Your task to perform on an android device: turn off improve location accuracy Image 0: 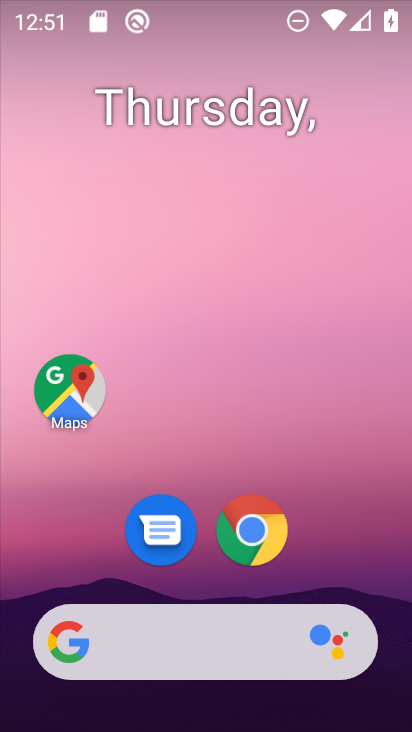
Step 0: drag from (241, 641) to (272, 68)
Your task to perform on an android device: turn off improve location accuracy Image 1: 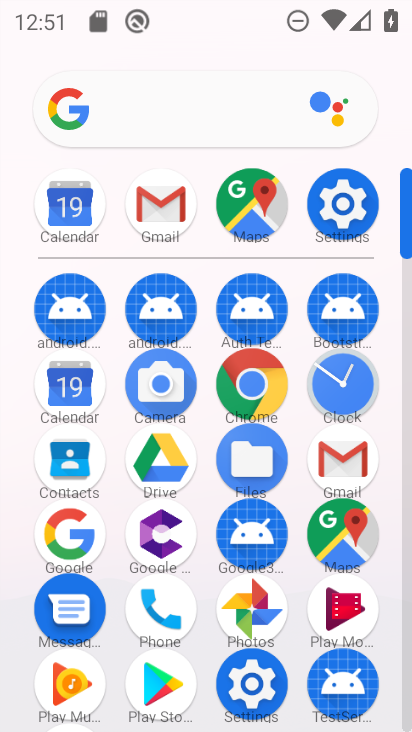
Step 1: click (262, 672)
Your task to perform on an android device: turn off improve location accuracy Image 2: 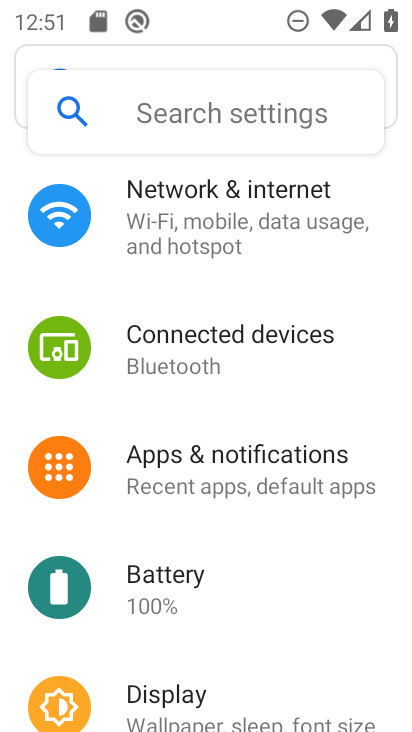
Step 2: drag from (218, 576) to (119, 2)
Your task to perform on an android device: turn off improve location accuracy Image 3: 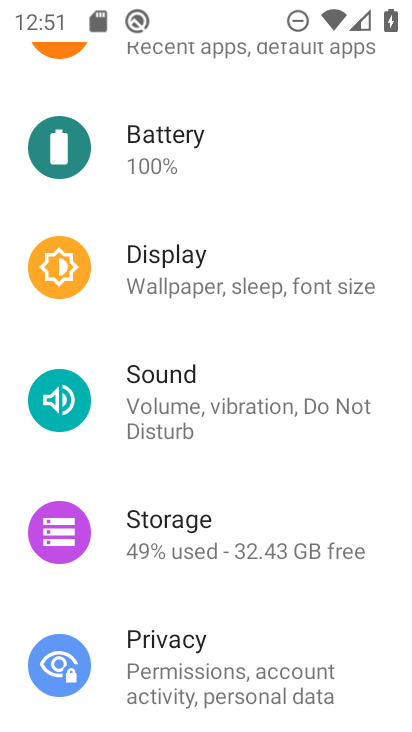
Step 3: drag from (185, 179) to (238, 377)
Your task to perform on an android device: turn off improve location accuracy Image 4: 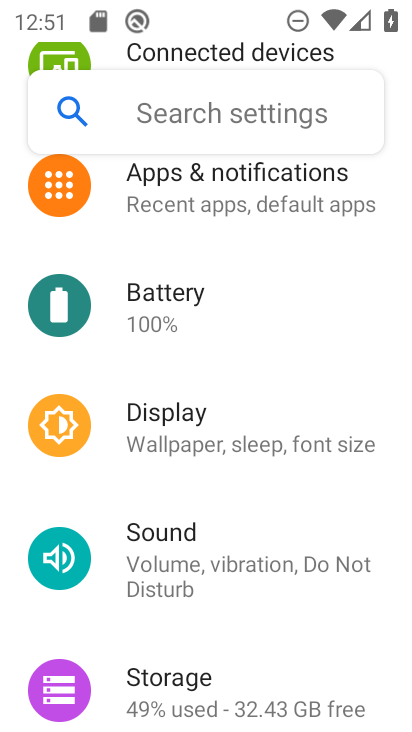
Step 4: drag from (220, 656) to (230, 41)
Your task to perform on an android device: turn off improve location accuracy Image 5: 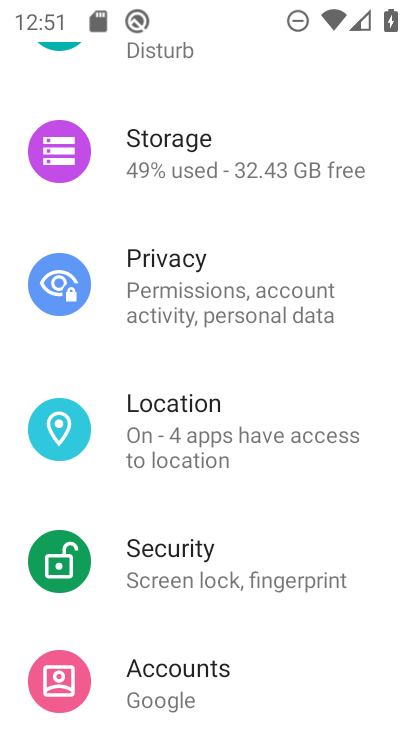
Step 5: click (186, 450)
Your task to perform on an android device: turn off improve location accuracy Image 6: 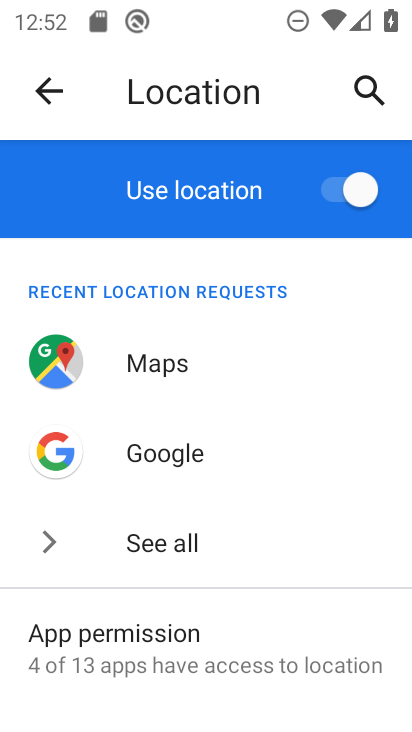
Step 6: drag from (144, 603) to (149, 4)
Your task to perform on an android device: turn off improve location accuracy Image 7: 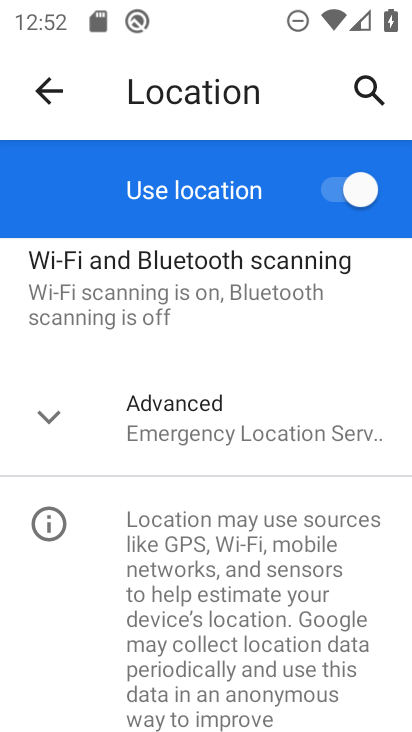
Step 7: click (183, 422)
Your task to perform on an android device: turn off improve location accuracy Image 8: 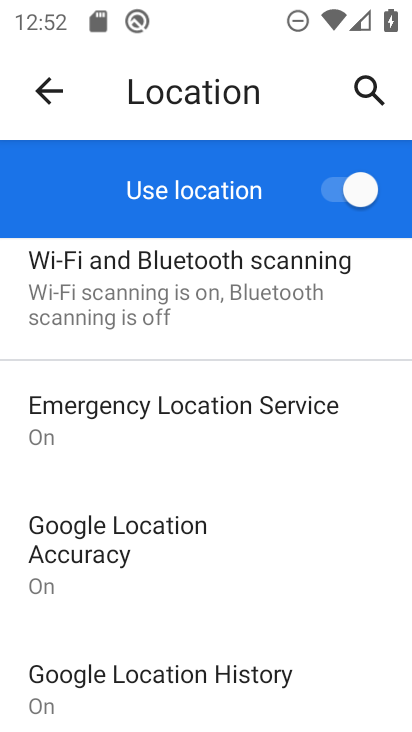
Step 8: click (145, 561)
Your task to perform on an android device: turn off improve location accuracy Image 9: 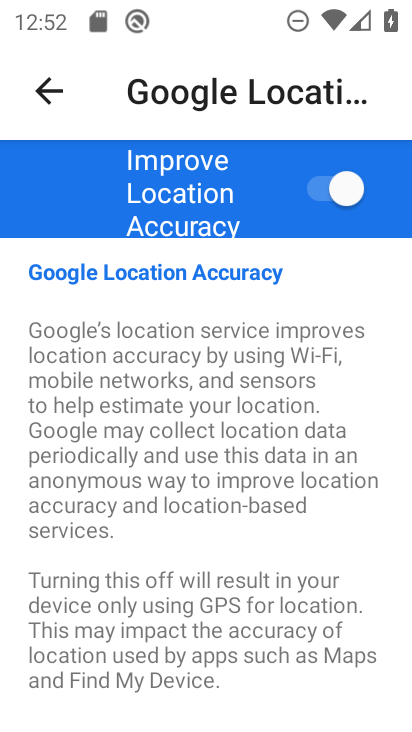
Step 9: click (331, 201)
Your task to perform on an android device: turn off improve location accuracy Image 10: 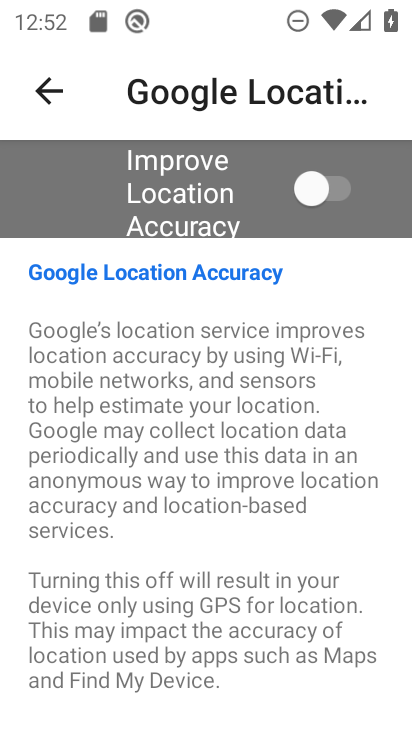
Step 10: task complete